Your task to perform on an android device: turn off notifications settings in the gmail app Image 0: 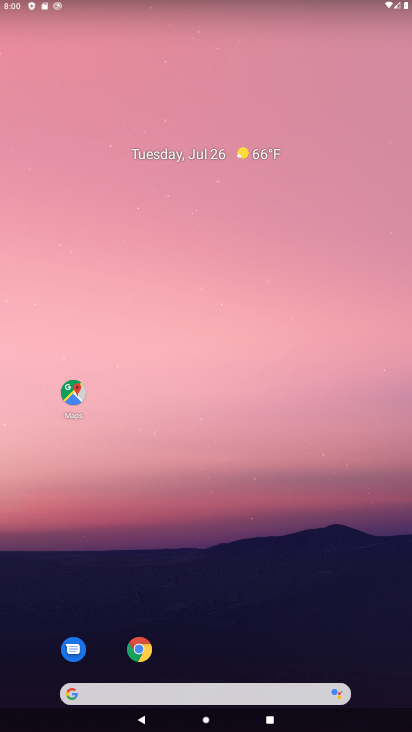
Step 0: drag from (190, 725) to (313, 29)
Your task to perform on an android device: turn off notifications settings in the gmail app Image 1: 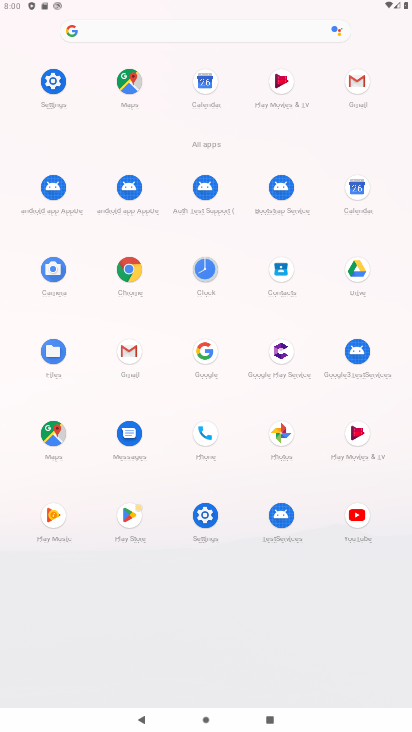
Step 1: click (133, 350)
Your task to perform on an android device: turn off notifications settings in the gmail app Image 2: 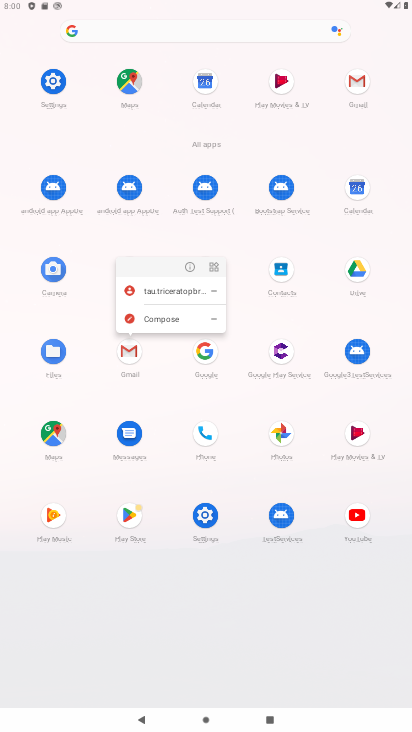
Step 2: click (189, 262)
Your task to perform on an android device: turn off notifications settings in the gmail app Image 3: 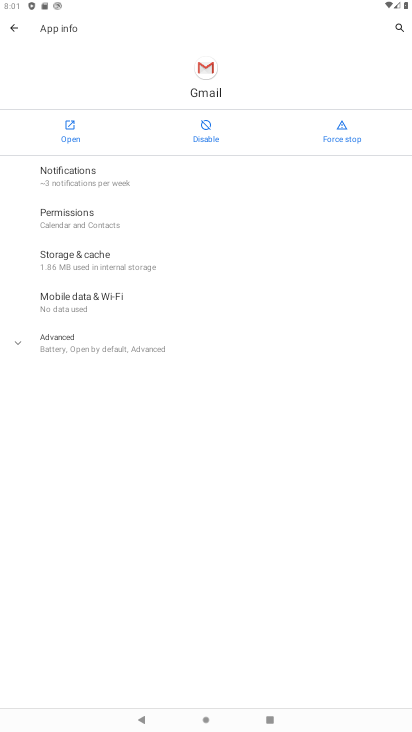
Step 3: click (80, 180)
Your task to perform on an android device: turn off notifications settings in the gmail app Image 4: 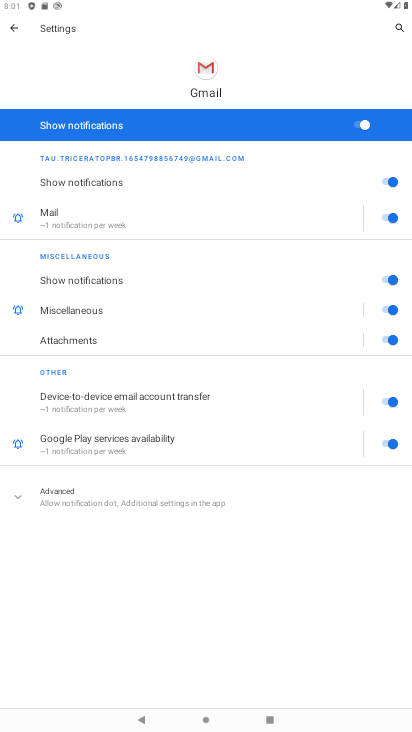
Step 4: click (356, 126)
Your task to perform on an android device: turn off notifications settings in the gmail app Image 5: 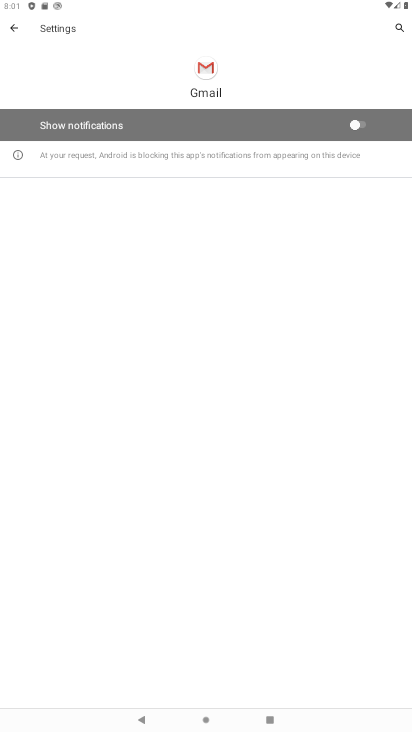
Step 5: task complete